Your task to perform on an android device: Open Google Chrome Image 0: 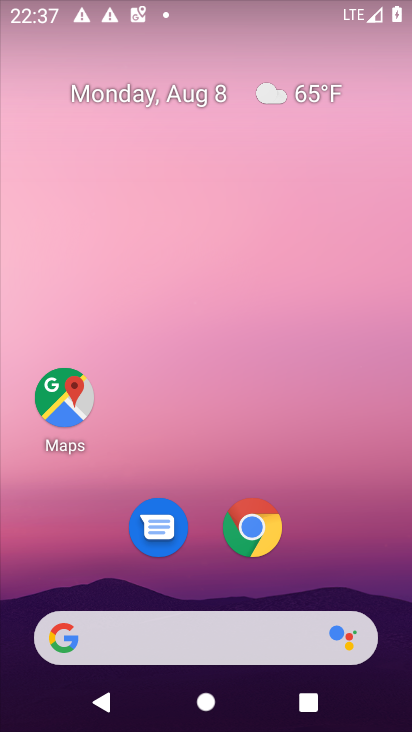
Step 0: click (256, 521)
Your task to perform on an android device: Open Google Chrome Image 1: 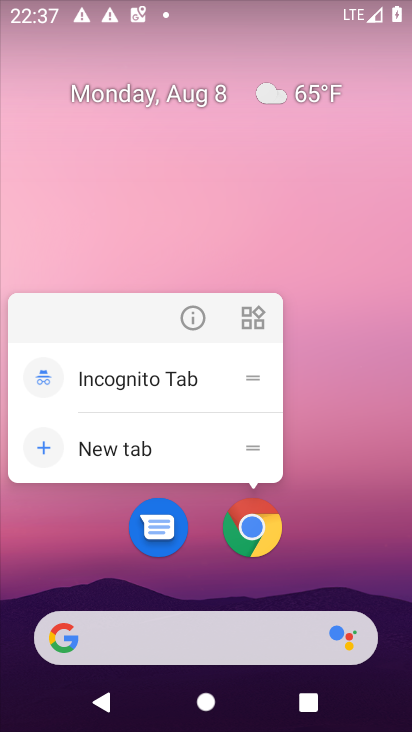
Step 1: click (249, 528)
Your task to perform on an android device: Open Google Chrome Image 2: 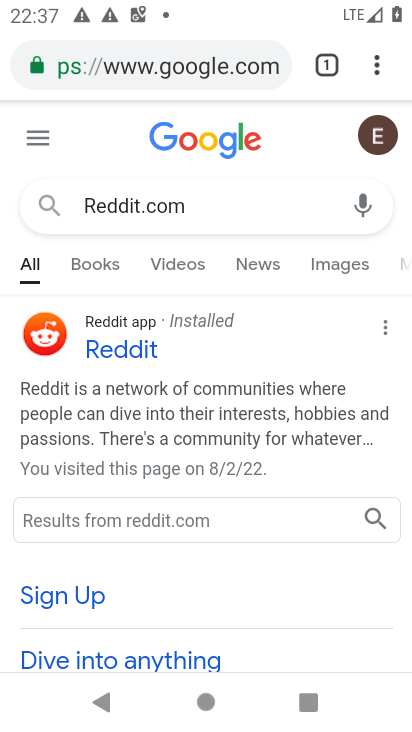
Step 2: task complete